Your task to perform on an android device: toggle location history Image 0: 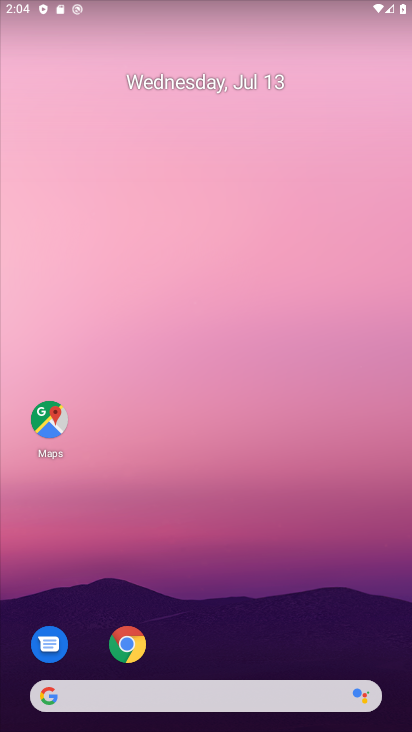
Step 0: drag from (234, 652) to (267, 53)
Your task to perform on an android device: toggle location history Image 1: 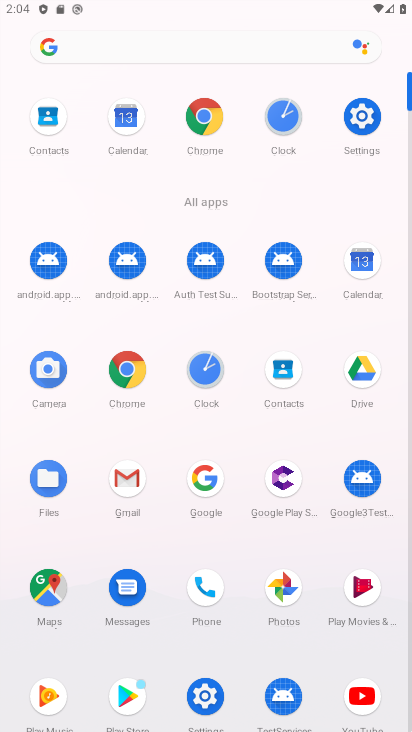
Step 1: click (352, 117)
Your task to perform on an android device: toggle location history Image 2: 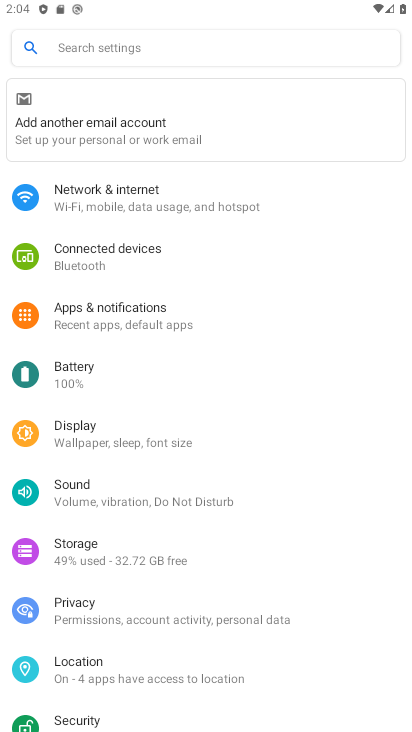
Step 2: click (101, 673)
Your task to perform on an android device: toggle location history Image 3: 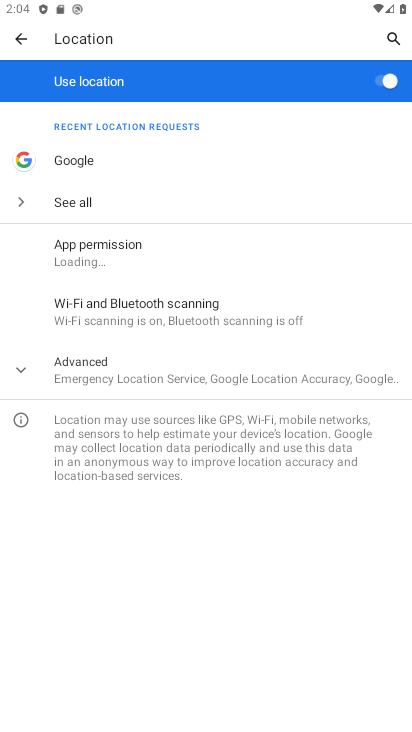
Step 3: click (94, 367)
Your task to perform on an android device: toggle location history Image 4: 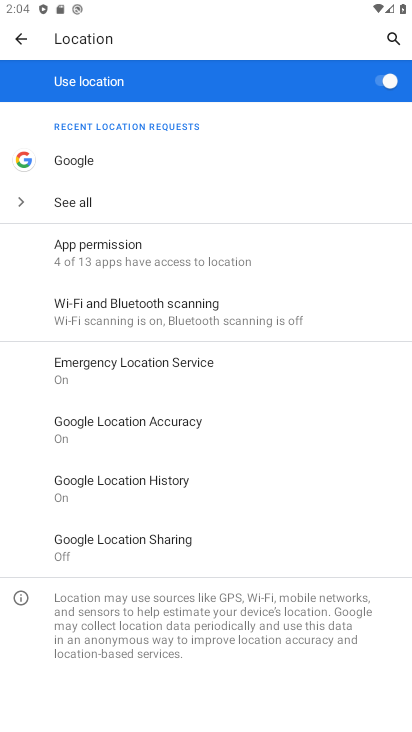
Step 4: click (104, 489)
Your task to perform on an android device: toggle location history Image 5: 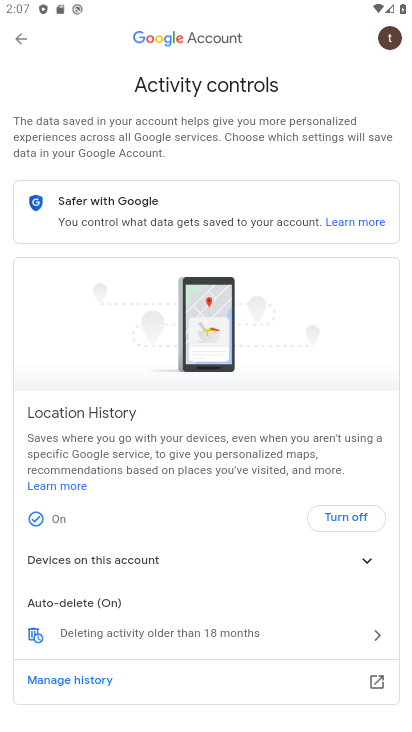
Step 5: click (352, 520)
Your task to perform on an android device: toggle location history Image 6: 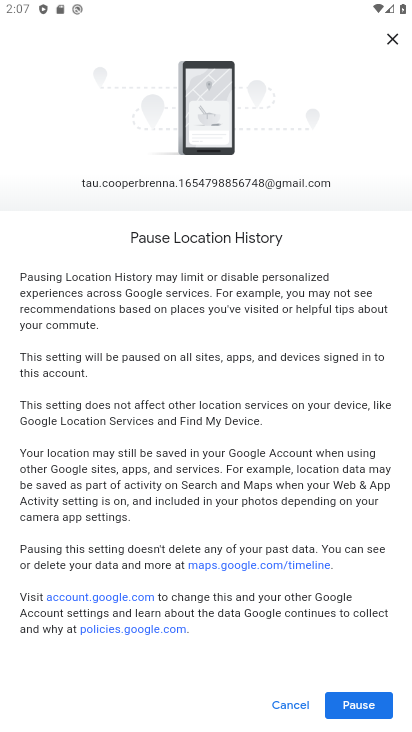
Step 6: click (341, 701)
Your task to perform on an android device: toggle location history Image 7: 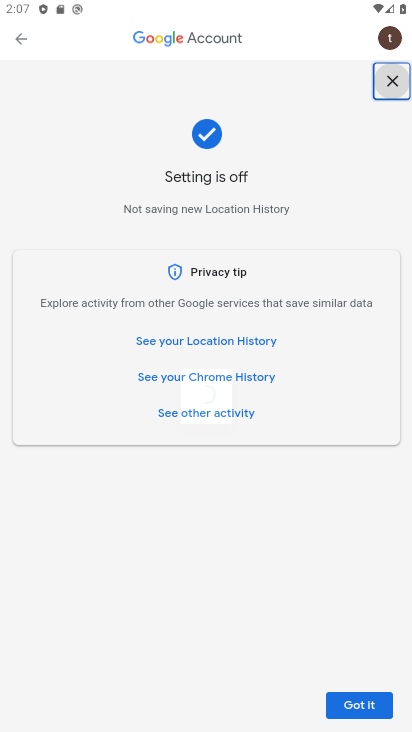
Step 7: task complete